Your task to perform on an android device: Look up the best rated 5.1 home theater speakers on Walmart. Image 0: 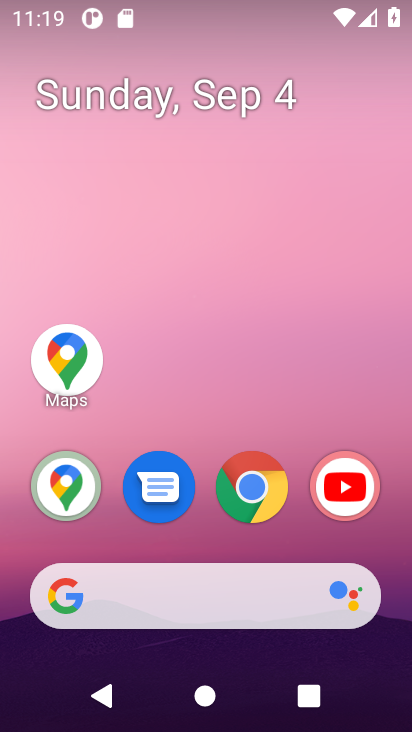
Step 0: click (352, 471)
Your task to perform on an android device: Look up the best rated 5.1 home theater speakers on Walmart. Image 1: 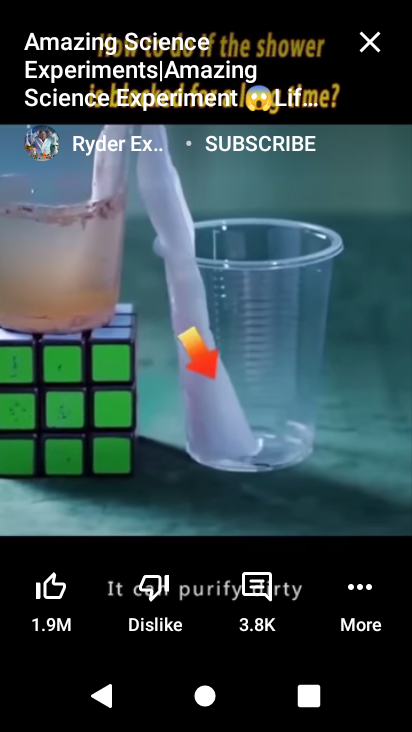
Step 1: task complete